Your task to perform on an android device: show emergency info Image 0: 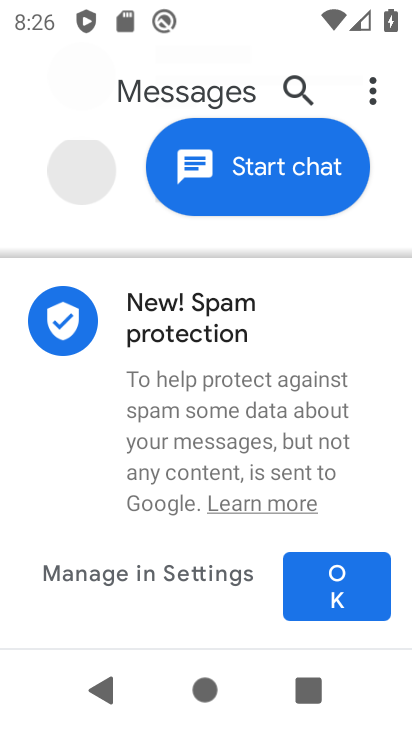
Step 0: press home button
Your task to perform on an android device: show emergency info Image 1: 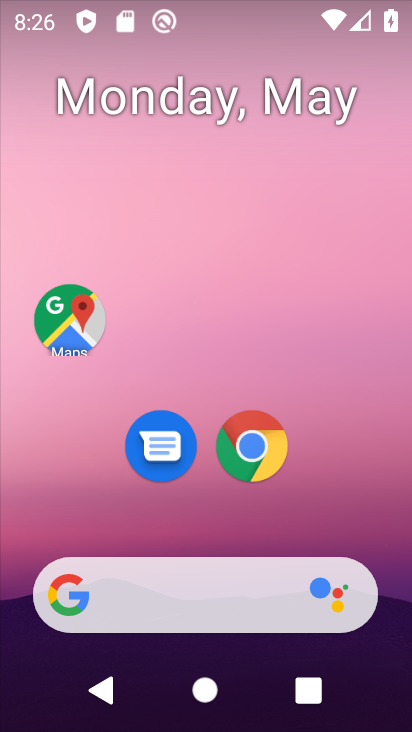
Step 1: drag from (211, 531) to (257, 7)
Your task to perform on an android device: show emergency info Image 2: 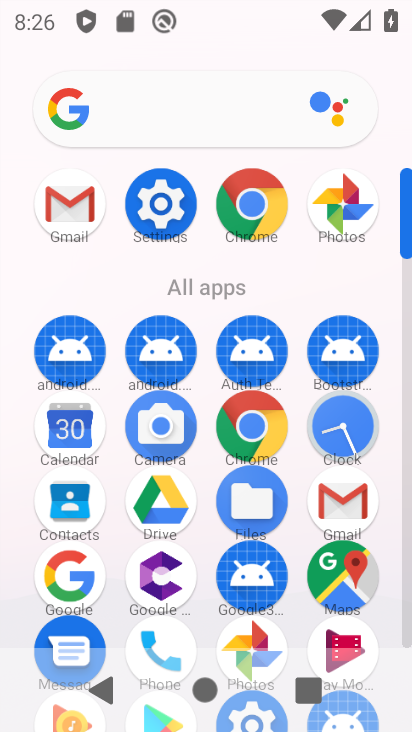
Step 2: click (159, 190)
Your task to perform on an android device: show emergency info Image 3: 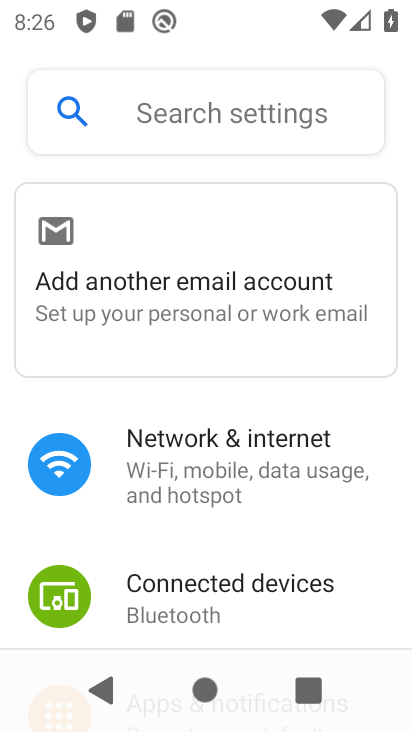
Step 3: drag from (235, 599) to (238, 96)
Your task to perform on an android device: show emergency info Image 4: 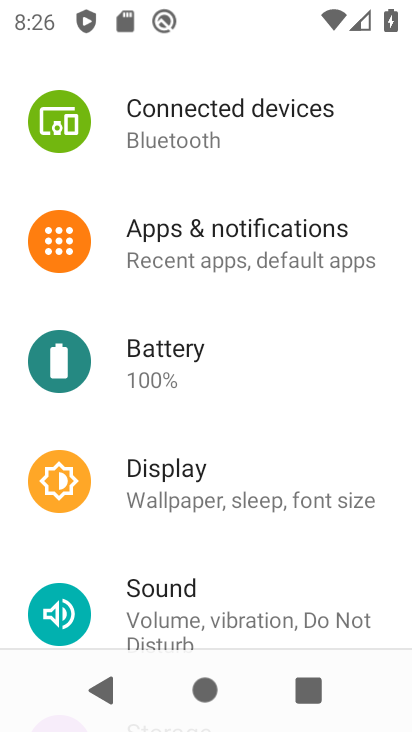
Step 4: drag from (236, 581) to (226, 73)
Your task to perform on an android device: show emergency info Image 5: 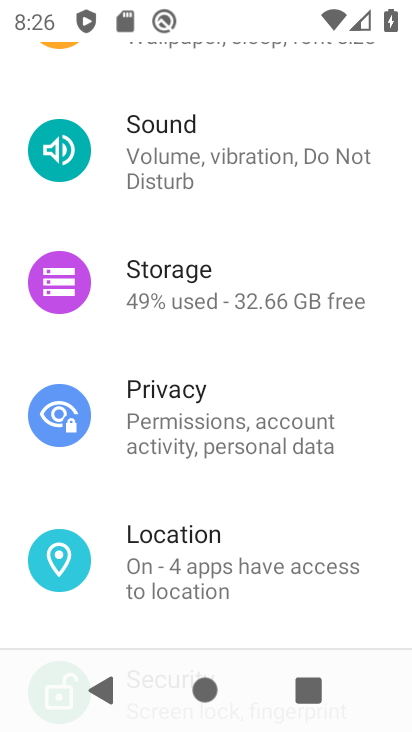
Step 5: drag from (253, 609) to (256, 19)
Your task to perform on an android device: show emergency info Image 6: 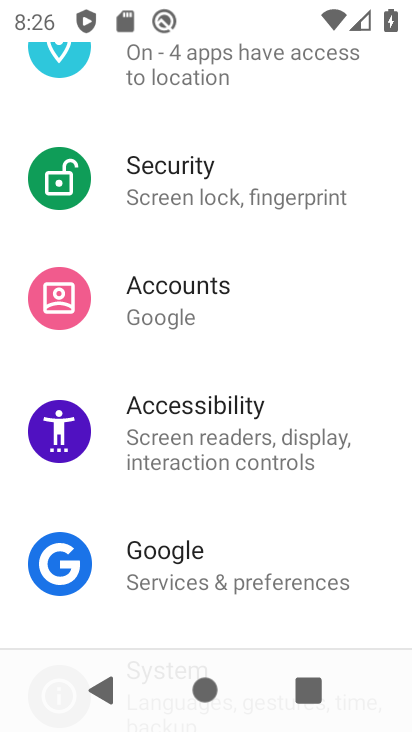
Step 6: drag from (241, 624) to (243, 87)
Your task to perform on an android device: show emergency info Image 7: 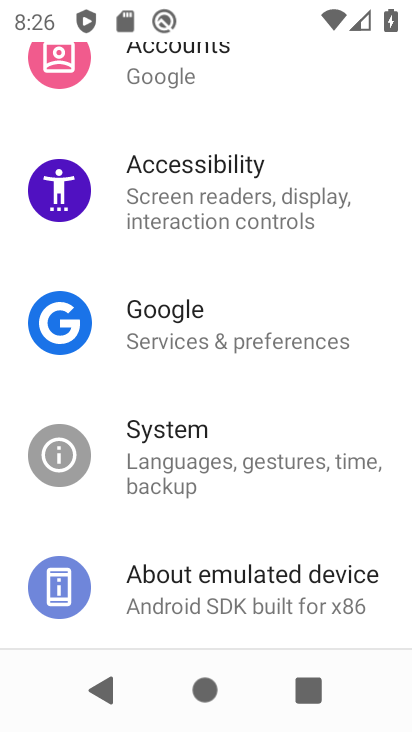
Step 7: click (239, 587)
Your task to perform on an android device: show emergency info Image 8: 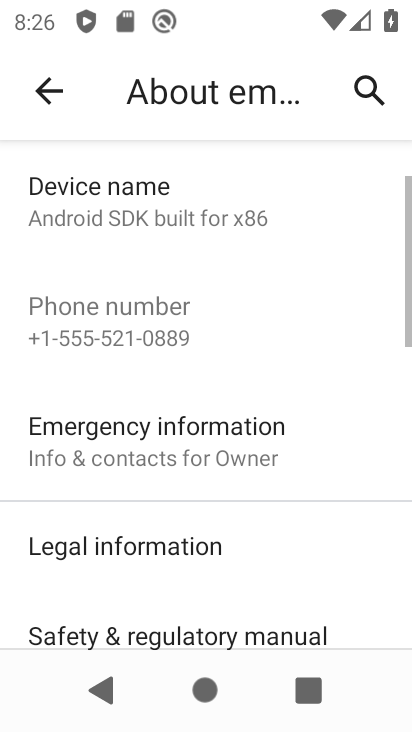
Step 8: click (203, 190)
Your task to perform on an android device: show emergency info Image 9: 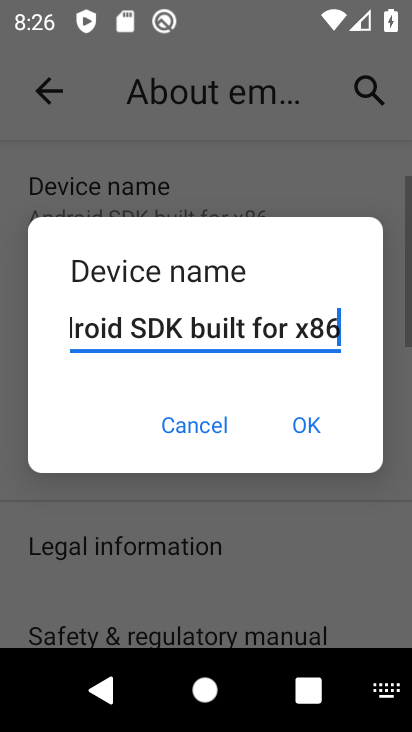
Step 9: click (196, 432)
Your task to perform on an android device: show emergency info Image 10: 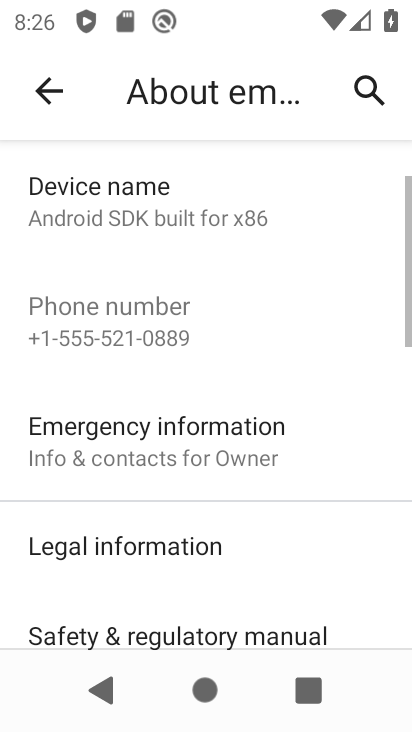
Step 10: click (169, 437)
Your task to perform on an android device: show emergency info Image 11: 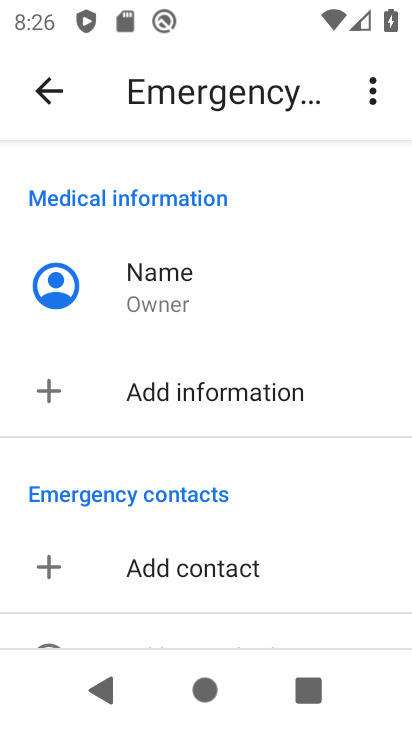
Step 11: task complete